Your task to perform on an android device: Open the phone app and click the voicemail tab. Image 0: 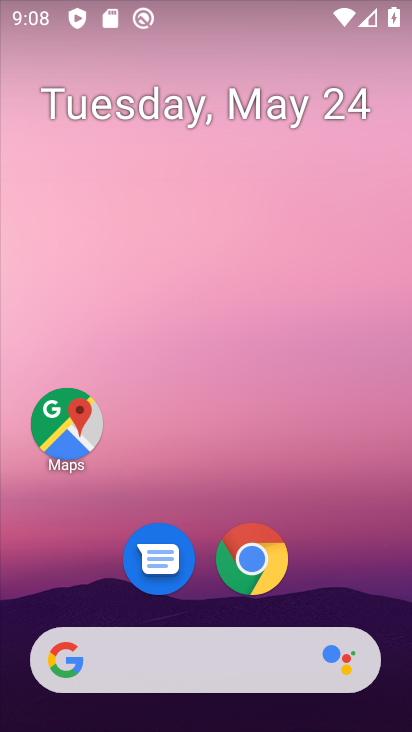
Step 0: click (386, 535)
Your task to perform on an android device: Open the phone app and click the voicemail tab. Image 1: 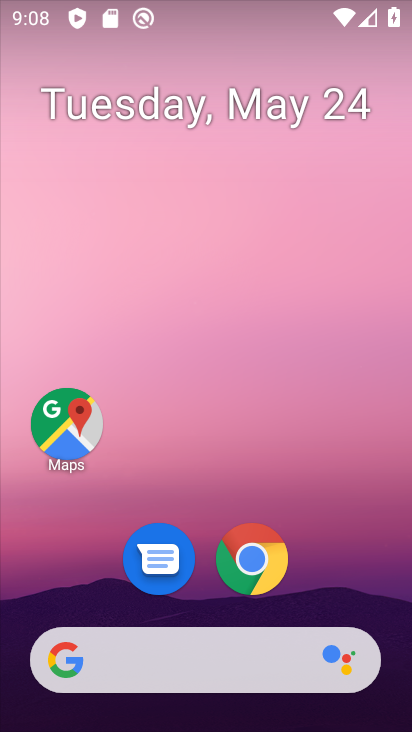
Step 1: drag from (386, 535) to (304, 107)
Your task to perform on an android device: Open the phone app and click the voicemail tab. Image 2: 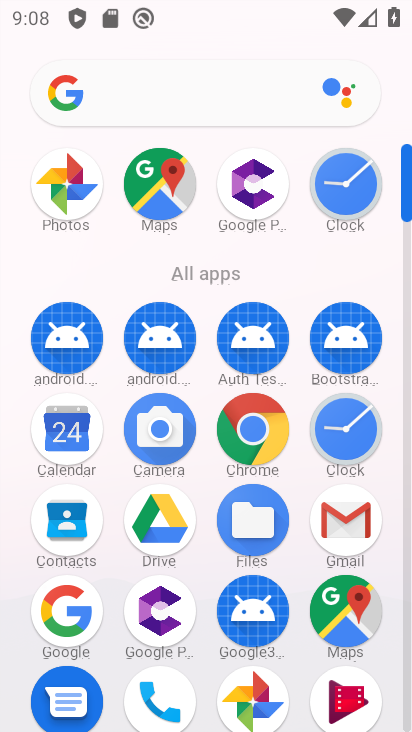
Step 2: click (164, 679)
Your task to perform on an android device: Open the phone app and click the voicemail tab. Image 3: 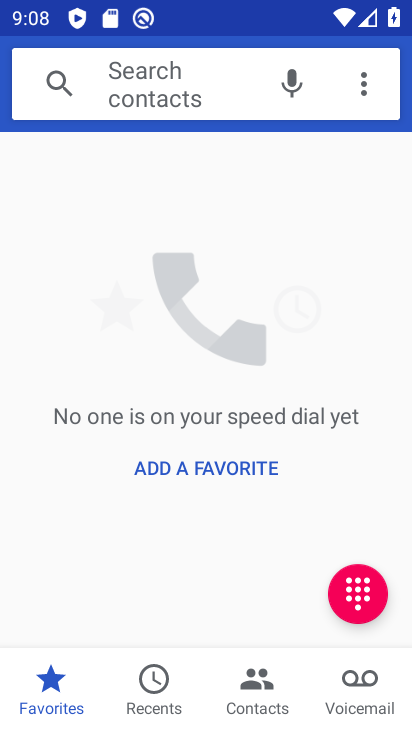
Step 3: click (358, 682)
Your task to perform on an android device: Open the phone app and click the voicemail tab. Image 4: 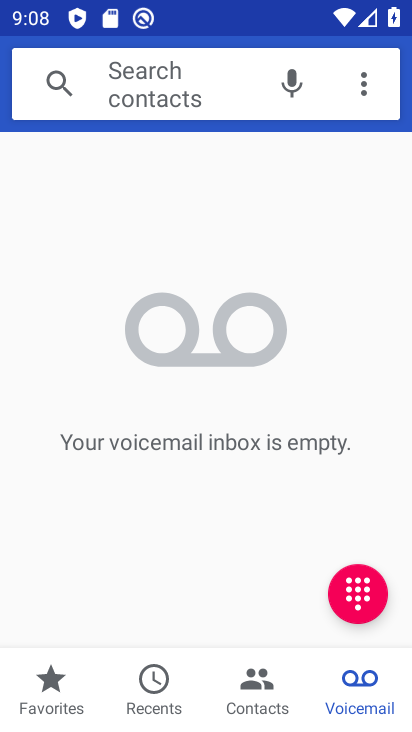
Step 4: task complete